Your task to perform on an android device: Add "acer predator" to the cart on target.com, then select checkout. Image 0: 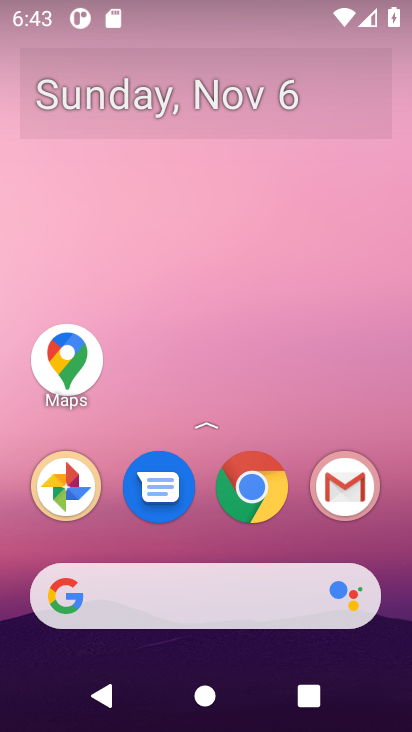
Step 0: click (249, 500)
Your task to perform on an android device: Add "acer predator" to the cart on target.com, then select checkout. Image 1: 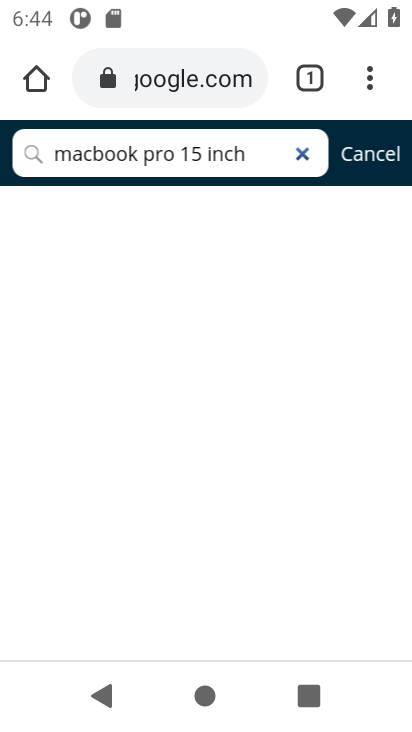
Step 1: click (142, 74)
Your task to perform on an android device: Add "acer predator" to the cart on target.com, then select checkout. Image 2: 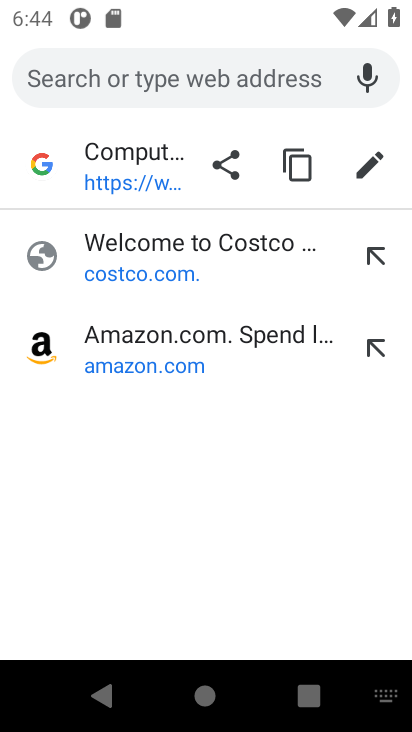
Step 2: type "target.com"
Your task to perform on an android device: Add "acer predator" to the cart on target.com, then select checkout. Image 3: 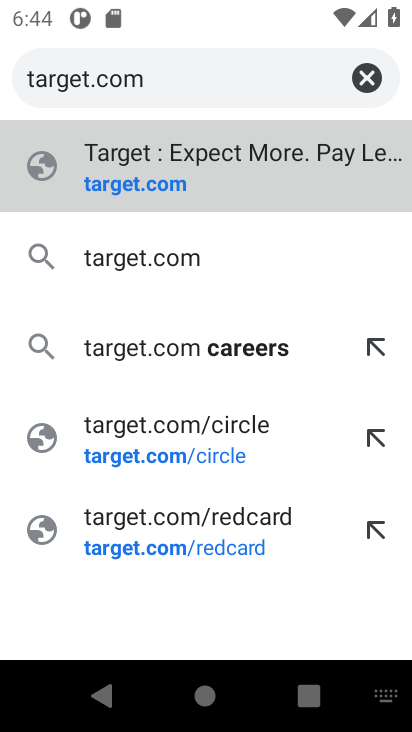
Step 3: click (187, 254)
Your task to perform on an android device: Add "acer predator" to the cart on target.com, then select checkout. Image 4: 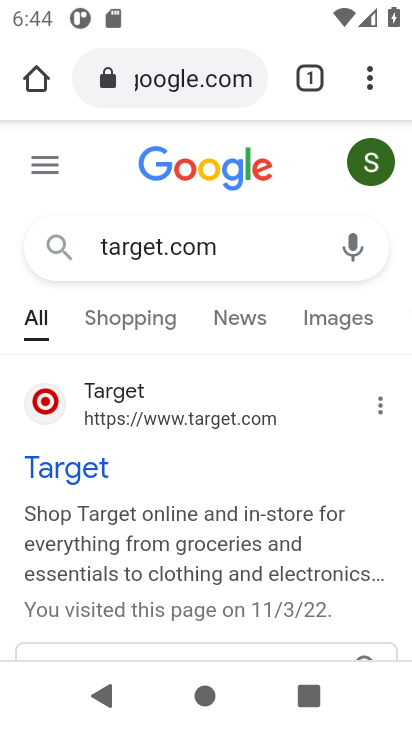
Step 4: click (81, 464)
Your task to perform on an android device: Add "acer predator" to the cart on target.com, then select checkout. Image 5: 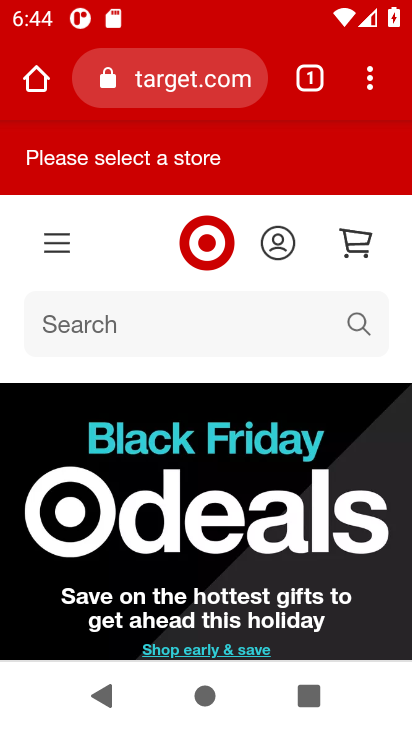
Step 5: click (148, 331)
Your task to perform on an android device: Add "acer predator" to the cart on target.com, then select checkout. Image 6: 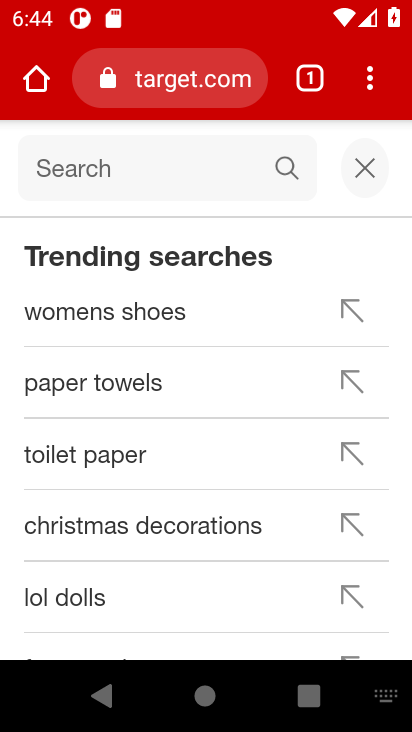
Step 6: type "acer predator"
Your task to perform on an android device: Add "acer predator" to the cart on target.com, then select checkout. Image 7: 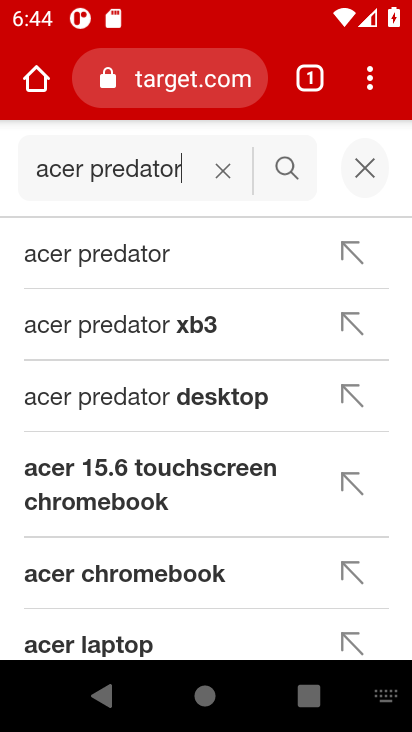
Step 7: click (294, 166)
Your task to perform on an android device: Add "acer predator" to the cart on target.com, then select checkout. Image 8: 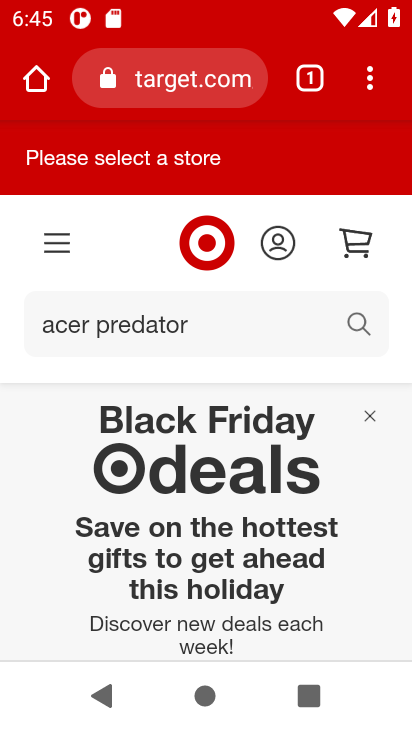
Step 8: drag from (77, 652) to (338, 55)
Your task to perform on an android device: Add "acer predator" to the cart on target.com, then select checkout. Image 9: 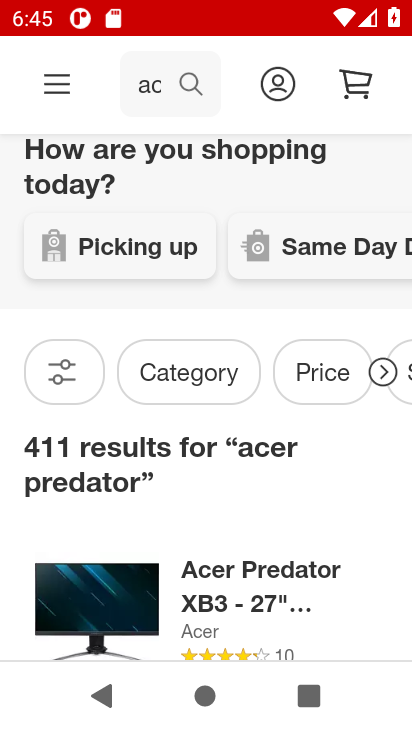
Step 9: drag from (175, 503) to (189, 183)
Your task to perform on an android device: Add "acer predator" to the cart on target.com, then select checkout. Image 10: 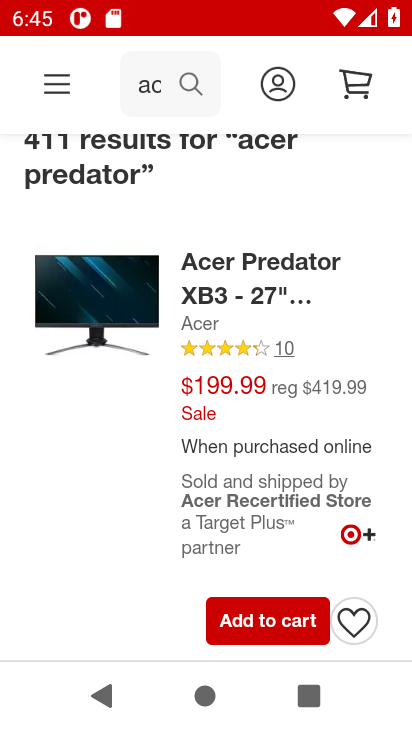
Step 10: click (248, 611)
Your task to perform on an android device: Add "acer predator" to the cart on target.com, then select checkout. Image 11: 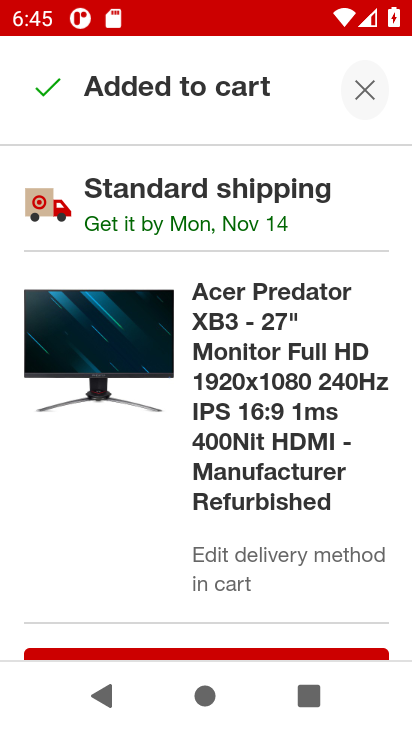
Step 11: drag from (83, 583) to (192, 243)
Your task to perform on an android device: Add "acer predator" to the cart on target.com, then select checkout. Image 12: 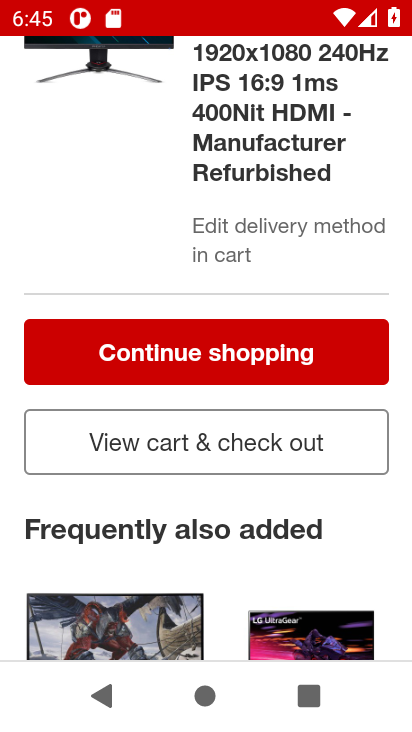
Step 12: click (149, 441)
Your task to perform on an android device: Add "acer predator" to the cart on target.com, then select checkout. Image 13: 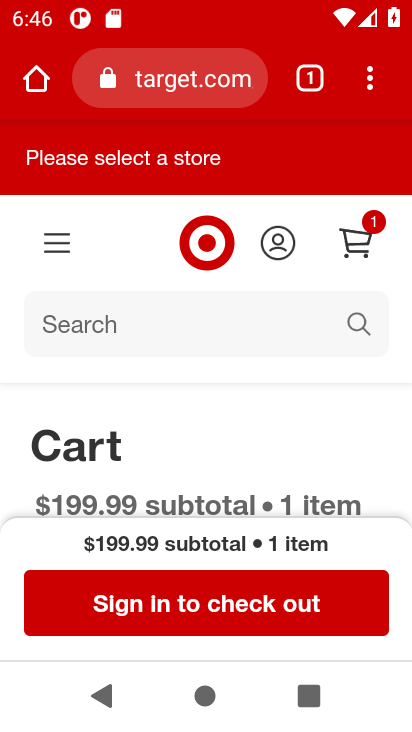
Step 13: task complete